Your task to perform on an android device: Open network settings Image 0: 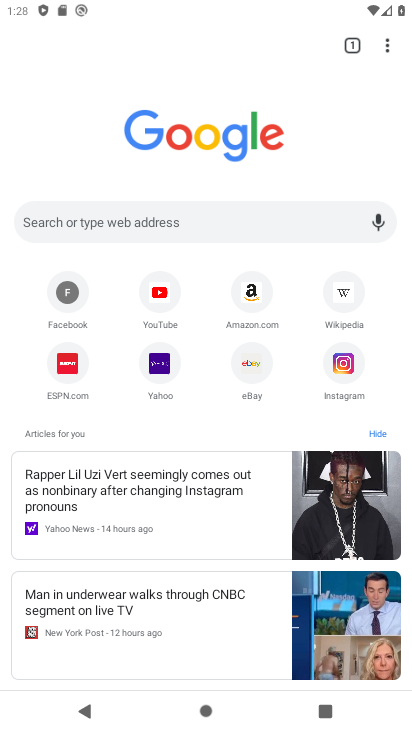
Step 0: press home button
Your task to perform on an android device: Open network settings Image 1: 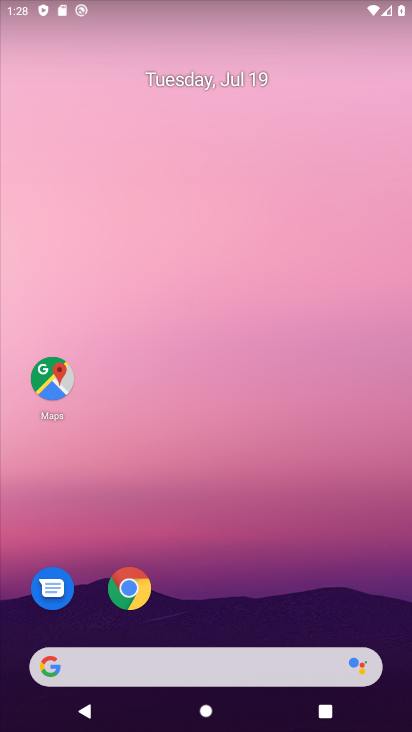
Step 1: drag from (257, 561) to (239, 33)
Your task to perform on an android device: Open network settings Image 2: 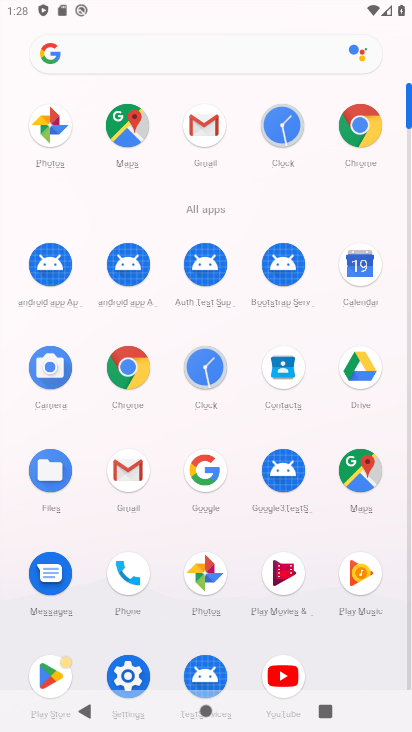
Step 2: click (125, 660)
Your task to perform on an android device: Open network settings Image 3: 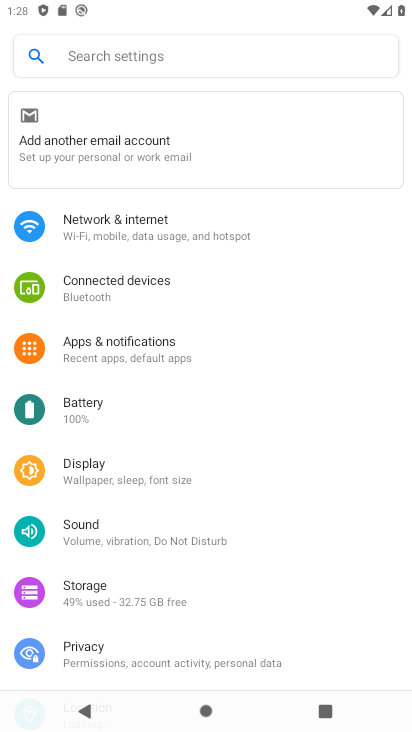
Step 3: click (128, 220)
Your task to perform on an android device: Open network settings Image 4: 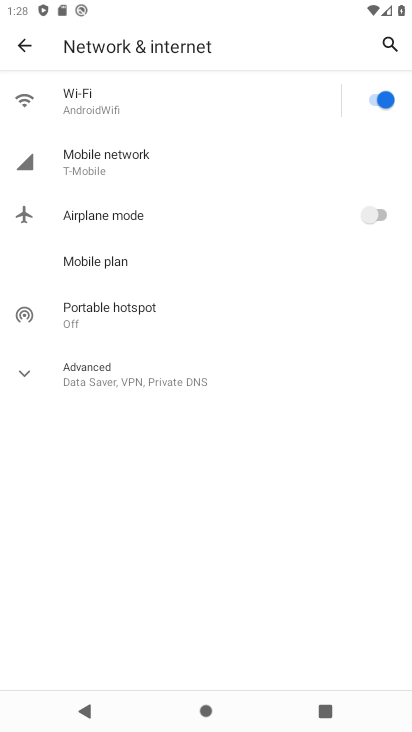
Step 4: task complete